Your task to perform on an android device: choose inbox layout in the gmail app Image 0: 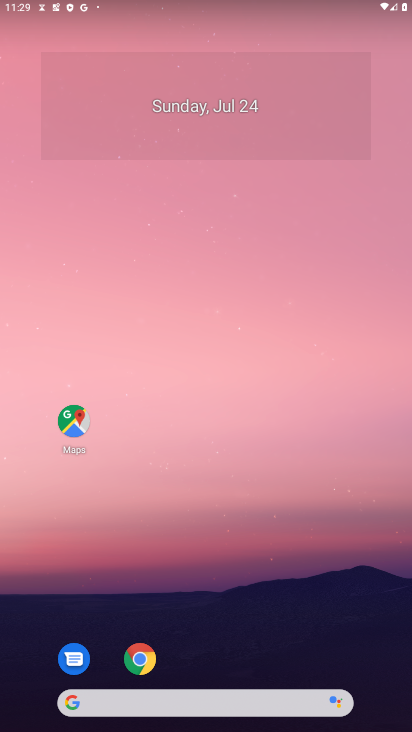
Step 0: click (158, 252)
Your task to perform on an android device: choose inbox layout in the gmail app Image 1: 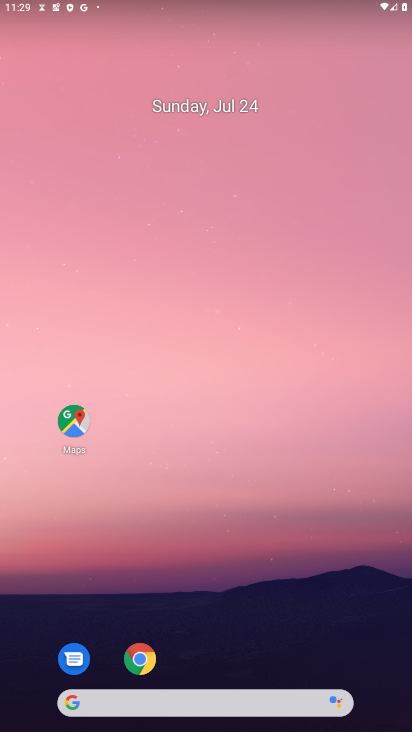
Step 1: drag from (232, 633) to (224, 338)
Your task to perform on an android device: choose inbox layout in the gmail app Image 2: 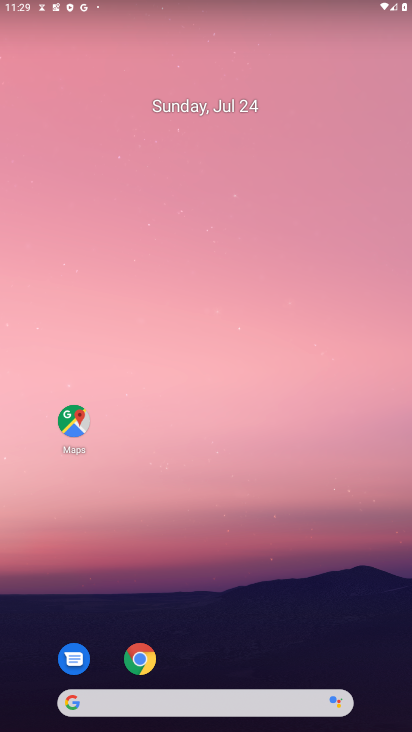
Step 2: drag from (304, 646) to (175, 1)
Your task to perform on an android device: choose inbox layout in the gmail app Image 3: 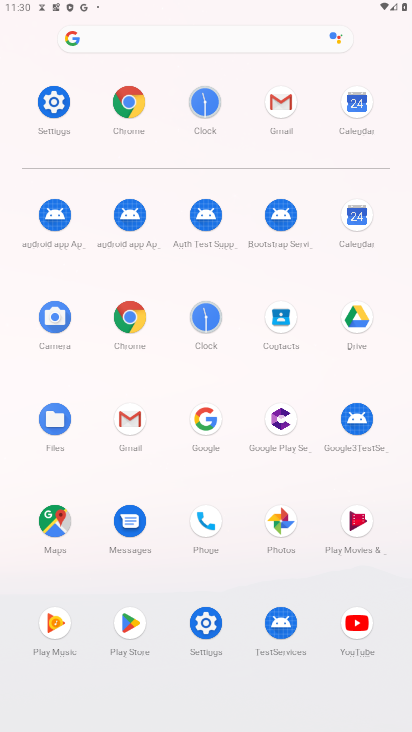
Step 3: click (280, 86)
Your task to perform on an android device: choose inbox layout in the gmail app Image 4: 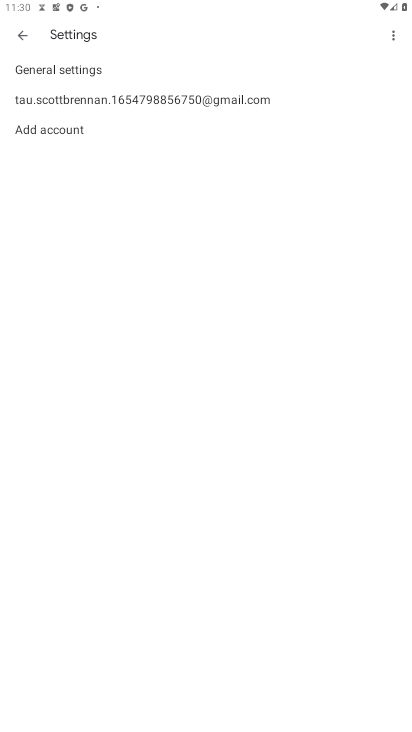
Step 4: click (77, 90)
Your task to perform on an android device: choose inbox layout in the gmail app Image 5: 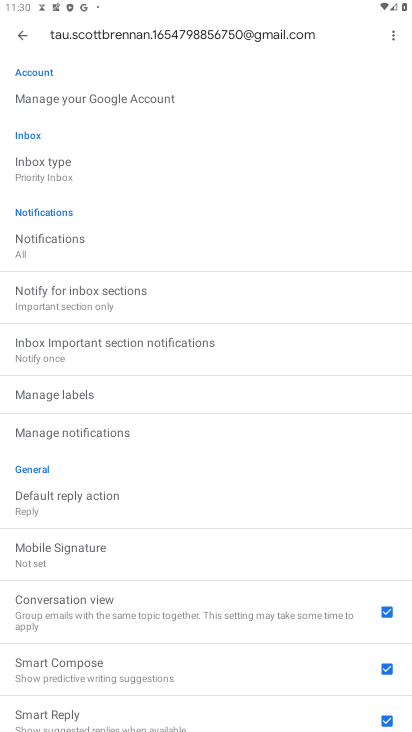
Step 5: click (62, 172)
Your task to perform on an android device: choose inbox layout in the gmail app Image 6: 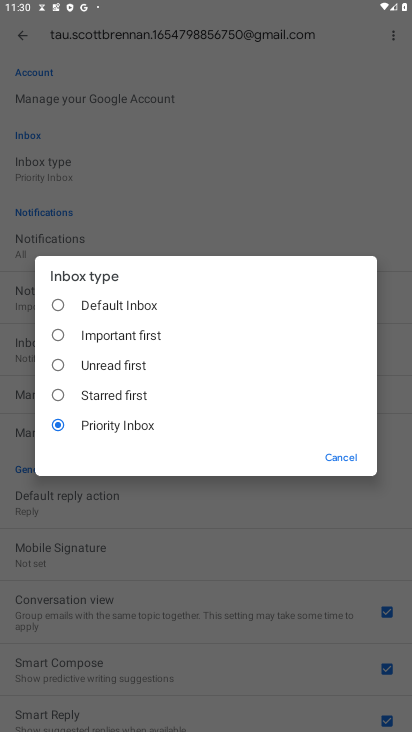
Step 6: click (121, 370)
Your task to perform on an android device: choose inbox layout in the gmail app Image 7: 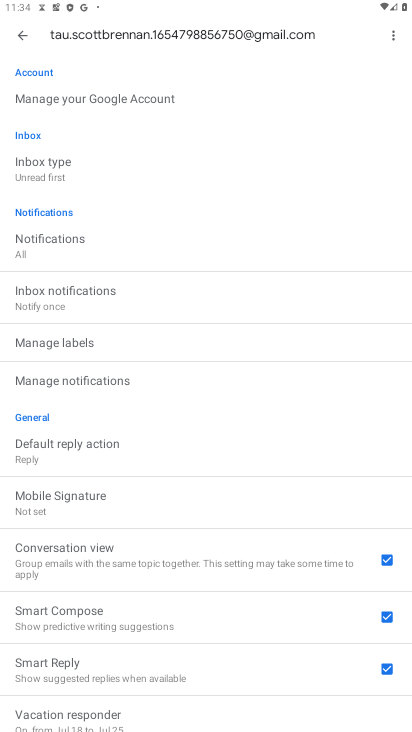
Step 7: click (79, 162)
Your task to perform on an android device: choose inbox layout in the gmail app Image 8: 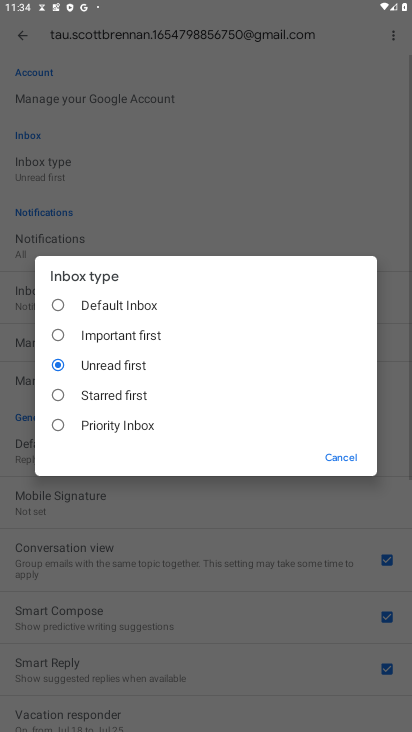
Step 8: task complete